Your task to perform on an android device: Check the news Image 0: 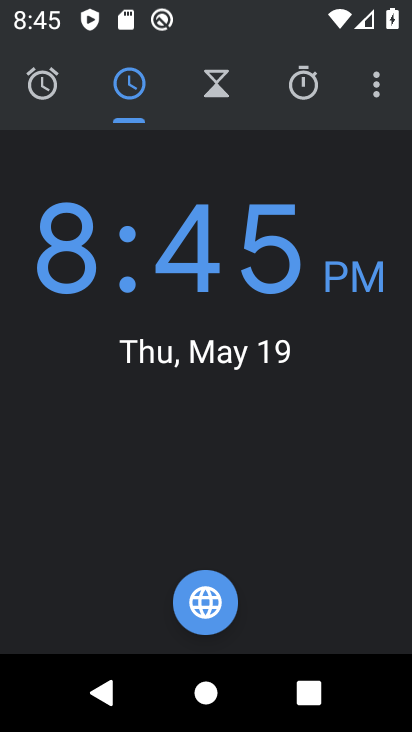
Step 0: press home button
Your task to perform on an android device: Check the news Image 1: 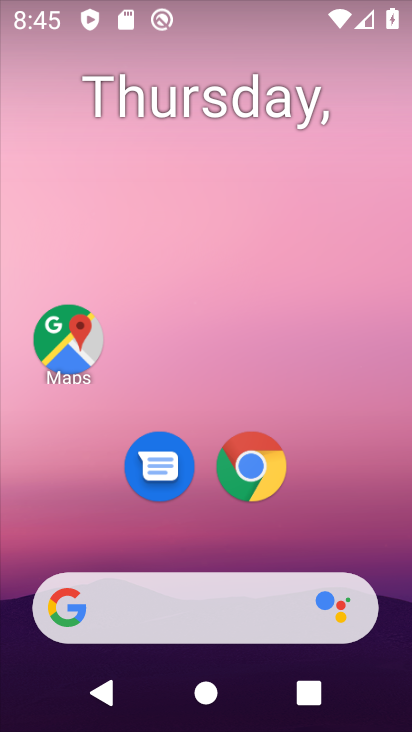
Step 1: click (79, 615)
Your task to perform on an android device: Check the news Image 2: 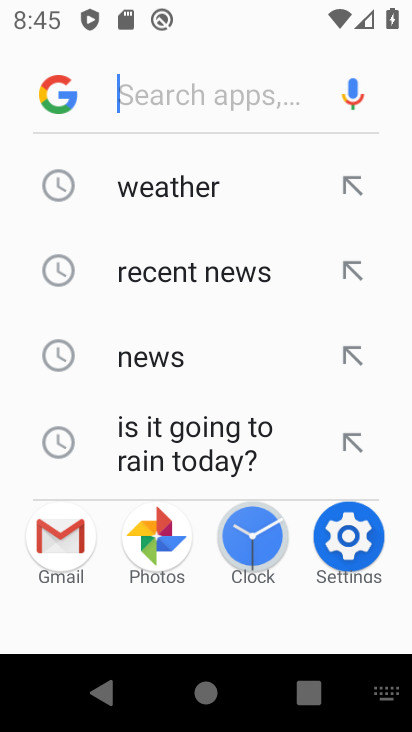
Step 2: click (154, 371)
Your task to perform on an android device: Check the news Image 3: 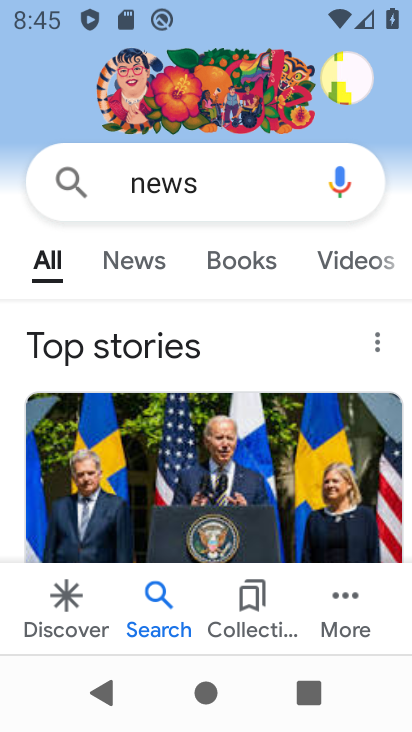
Step 3: click (151, 264)
Your task to perform on an android device: Check the news Image 4: 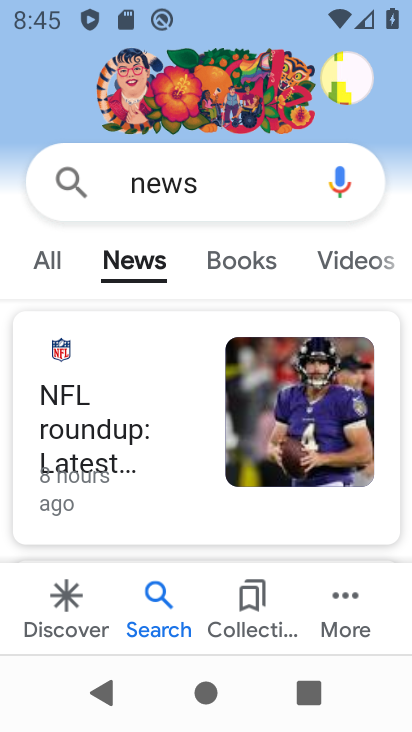
Step 4: task complete